Your task to perform on an android device: Go to Maps Image 0: 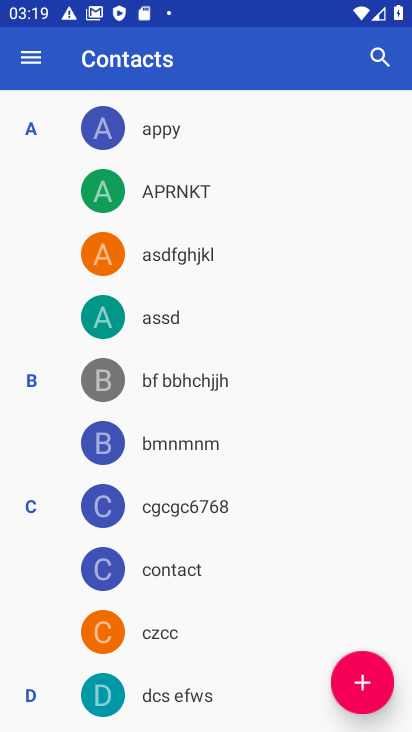
Step 0: press home button
Your task to perform on an android device: Go to Maps Image 1: 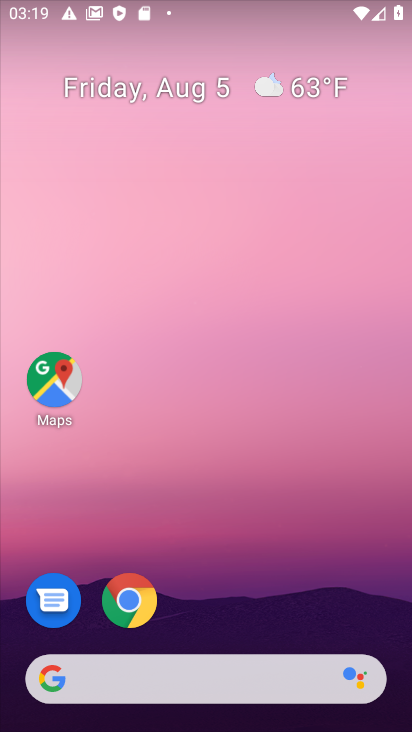
Step 1: click (55, 381)
Your task to perform on an android device: Go to Maps Image 2: 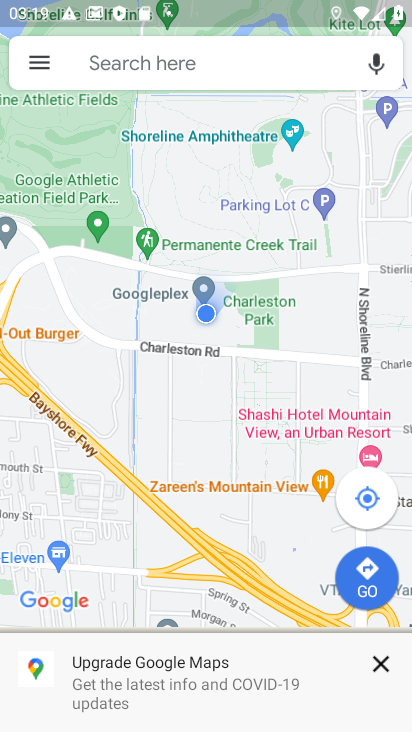
Step 2: task complete